Your task to perform on an android device: Go to Android settings Image 0: 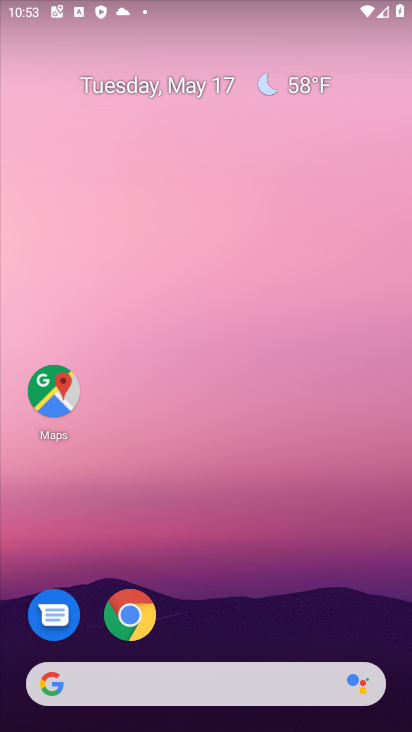
Step 0: drag from (368, 623) to (327, 208)
Your task to perform on an android device: Go to Android settings Image 1: 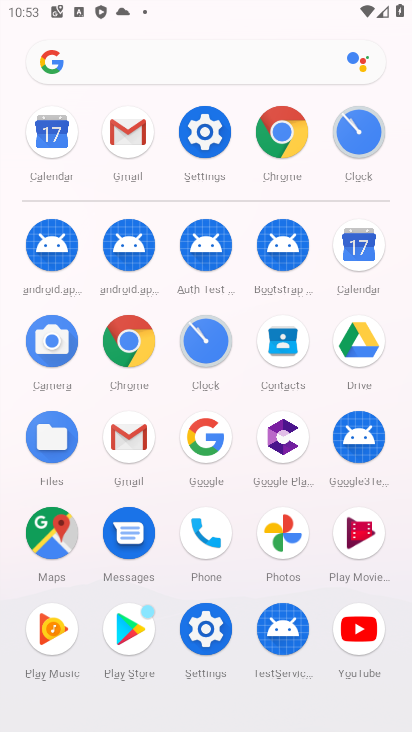
Step 1: click (206, 643)
Your task to perform on an android device: Go to Android settings Image 2: 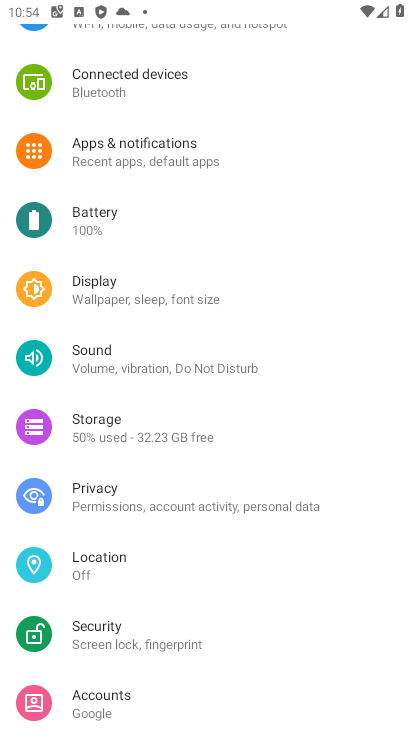
Step 2: drag from (294, 638) to (296, 264)
Your task to perform on an android device: Go to Android settings Image 3: 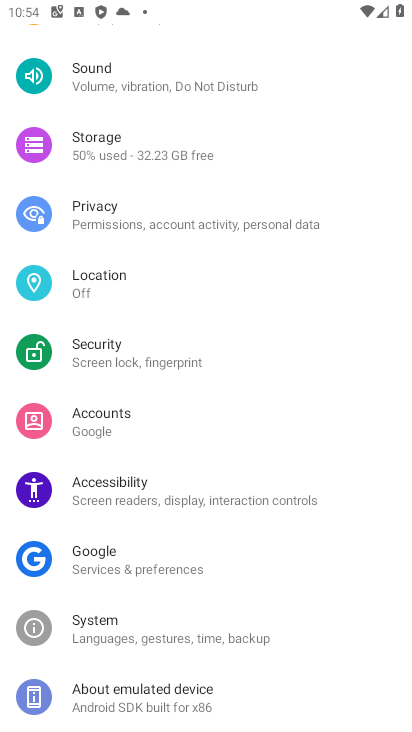
Step 3: click (138, 693)
Your task to perform on an android device: Go to Android settings Image 4: 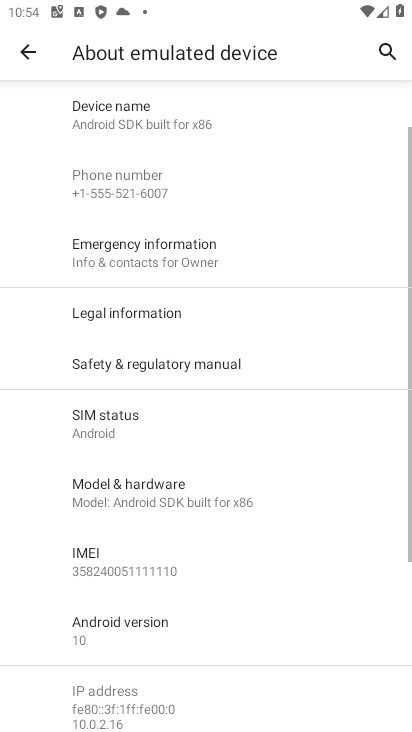
Step 4: task complete